Your task to perform on an android device: Turn off the flashlight Image 0: 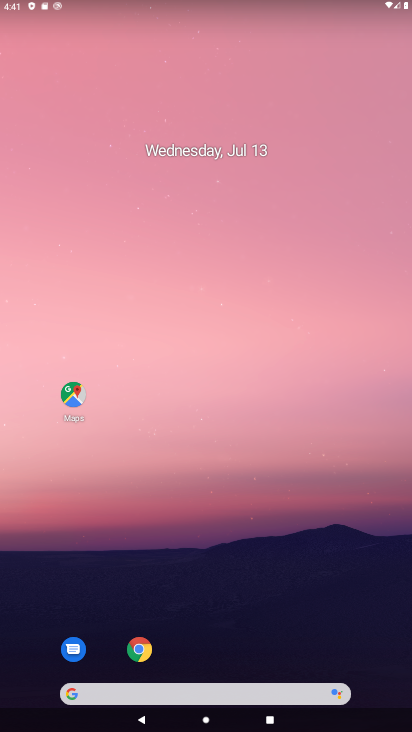
Step 0: drag from (268, 572) to (276, 24)
Your task to perform on an android device: Turn off the flashlight Image 1: 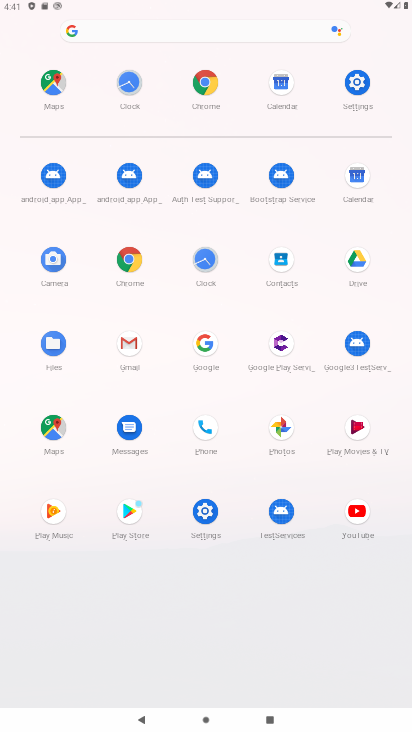
Step 1: click (353, 87)
Your task to perform on an android device: Turn off the flashlight Image 2: 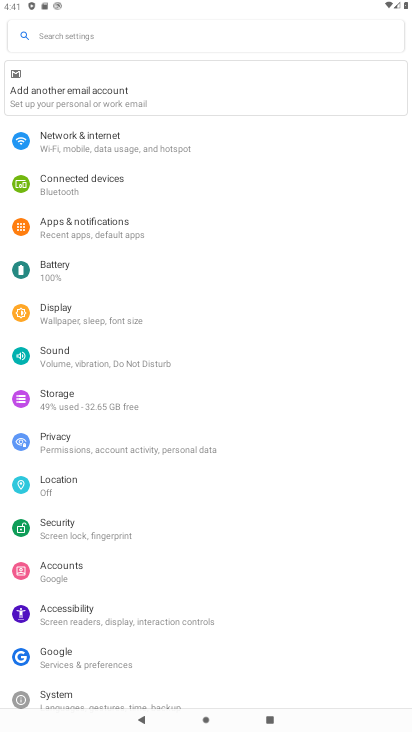
Step 2: task complete